Your task to perform on an android device: find which apps use the phone's location Image 0: 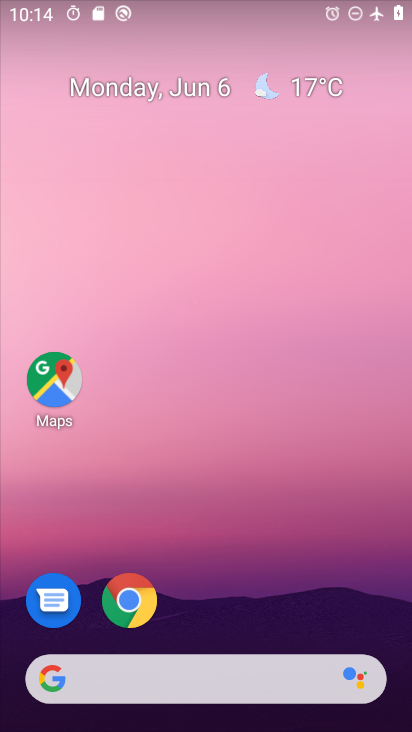
Step 0: drag from (330, 597) to (282, 73)
Your task to perform on an android device: find which apps use the phone's location Image 1: 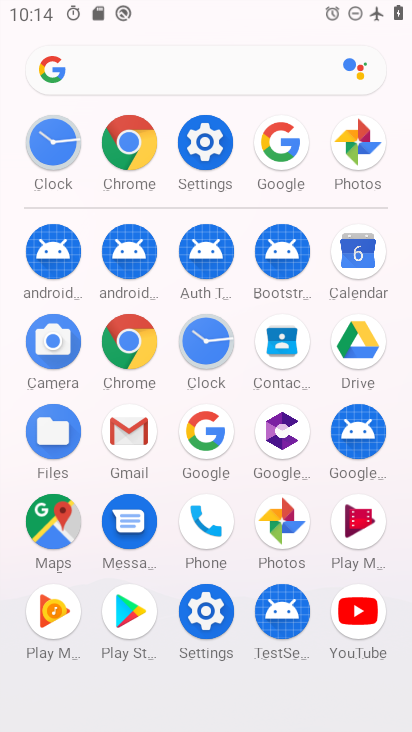
Step 1: click (210, 155)
Your task to perform on an android device: find which apps use the phone's location Image 2: 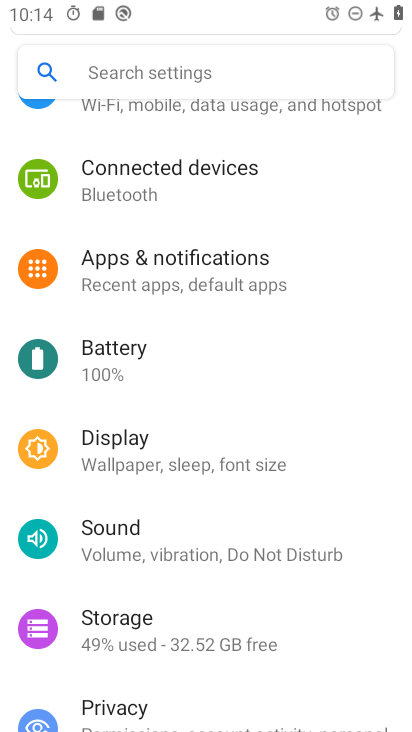
Step 2: drag from (268, 545) to (247, 101)
Your task to perform on an android device: find which apps use the phone's location Image 3: 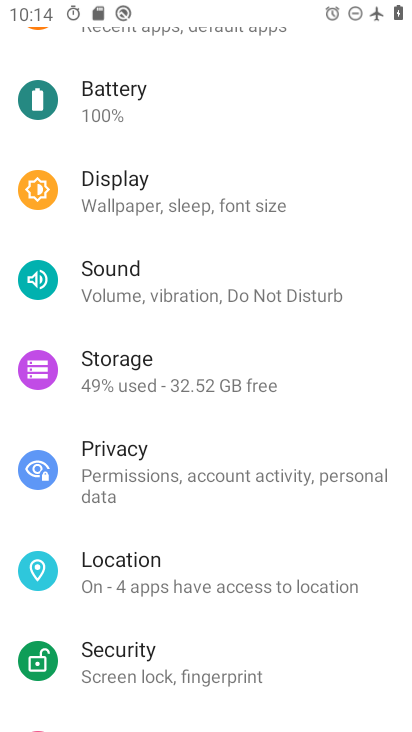
Step 3: click (191, 574)
Your task to perform on an android device: find which apps use the phone's location Image 4: 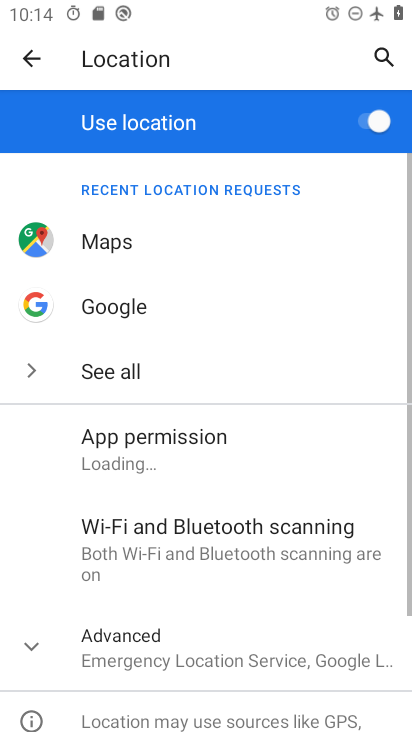
Step 4: click (210, 446)
Your task to perform on an android device: find which apps use the phone's location Image 5: 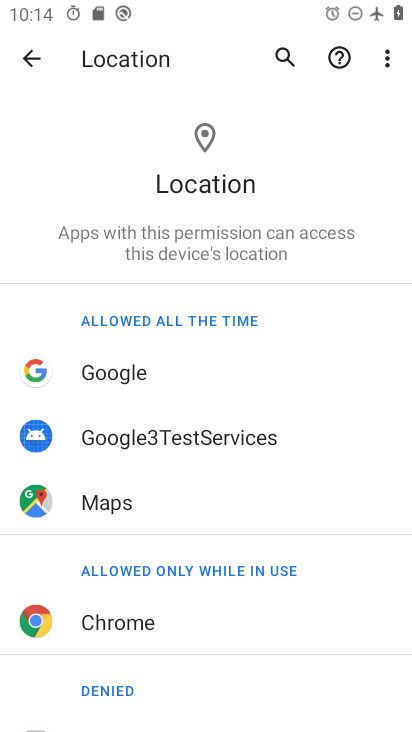
Step 5: task complete